Your task to perform on an android device: turn on javascript in the chrome app Image 0: 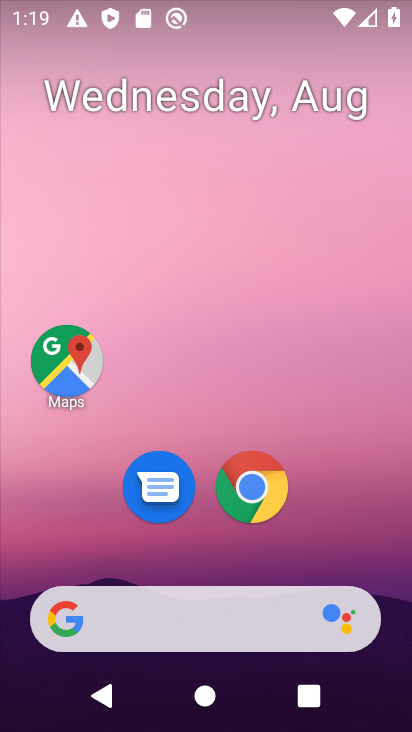
Step 0: drag from (271, 545) to (294, 29)
Your task to perform on an android device: turn on javascript in the chrome app Image 1: 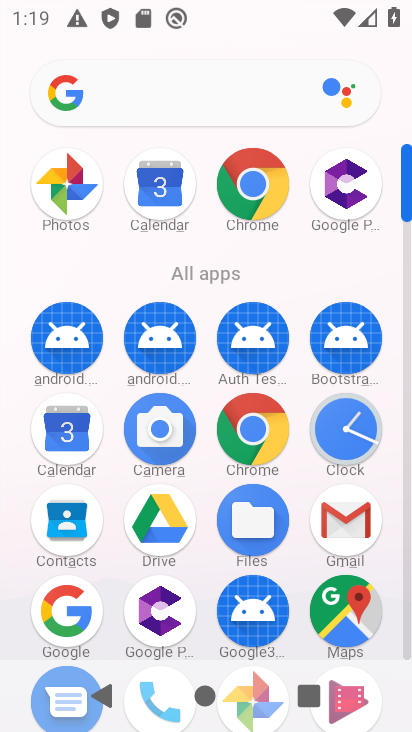
Step 1: click (249, 429)
Your task to perform on an android device: turn on javascript in the chrome app Image 2: 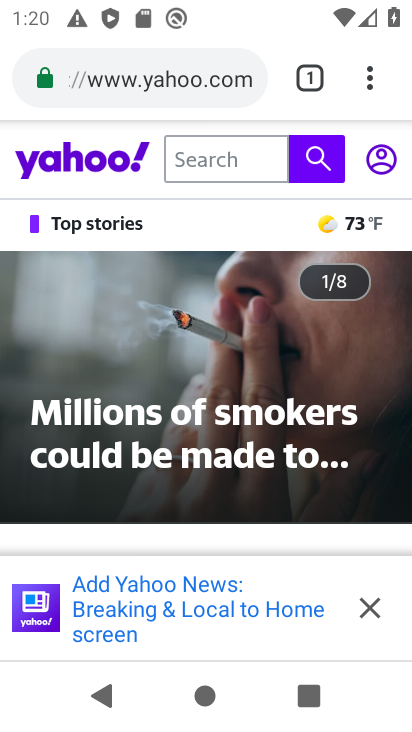
Step 2: drag from (368, 77) to (224, 548)
Your task to perform on an android device: turn on javascript in the chrome app Image 3: 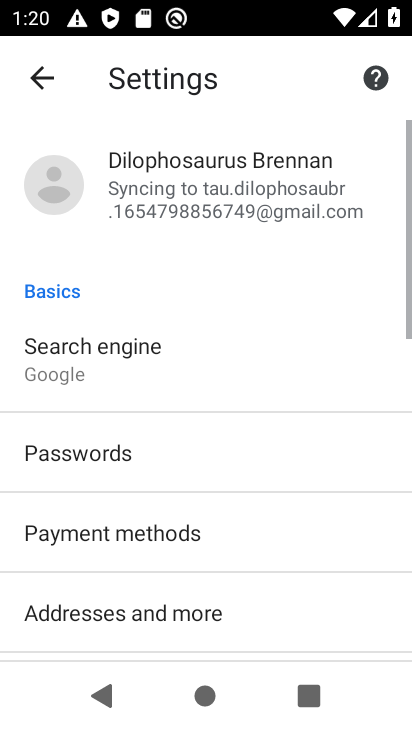
Step 3: drag from (211, 607) to (212, 216)
Your task to perform on an android device: turn on javascript in the chrome app Image 4: 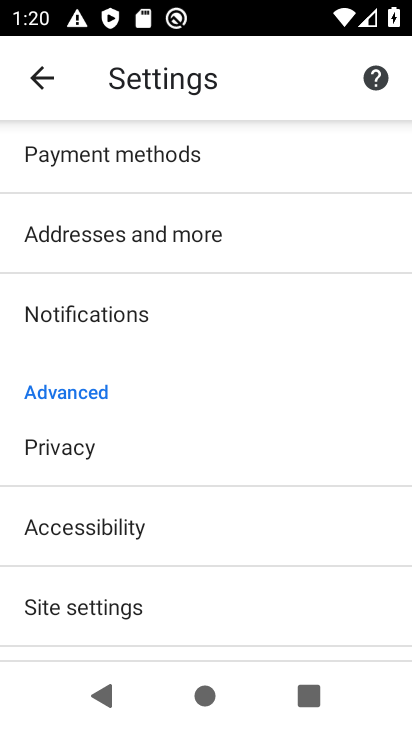
Step 4: click (66, 600)
Your task to perform on an android device: turn on javascript in the chrome app Image 5: 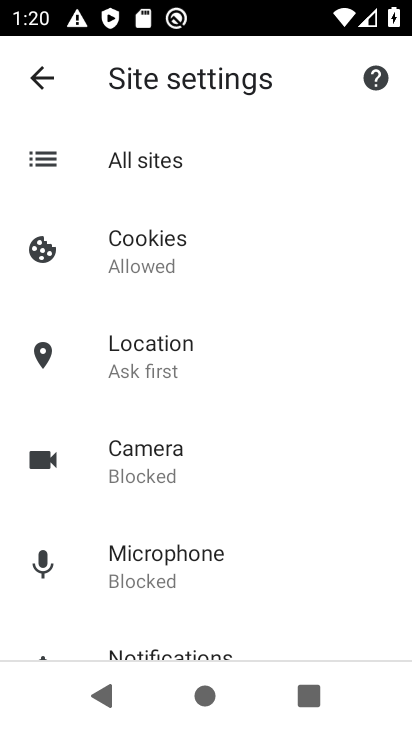
Step 5: drag from (291, 599) to (316, 272)
Your task to perform on an android device: turn on javascript in the chrome app Image 6: 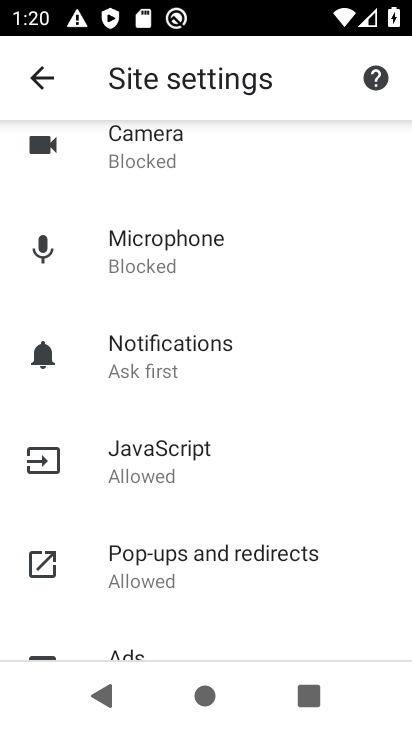
Step 6: click (108, 454)
Your task to perform on an android device: turn on javascript in the chrome app Image 7: 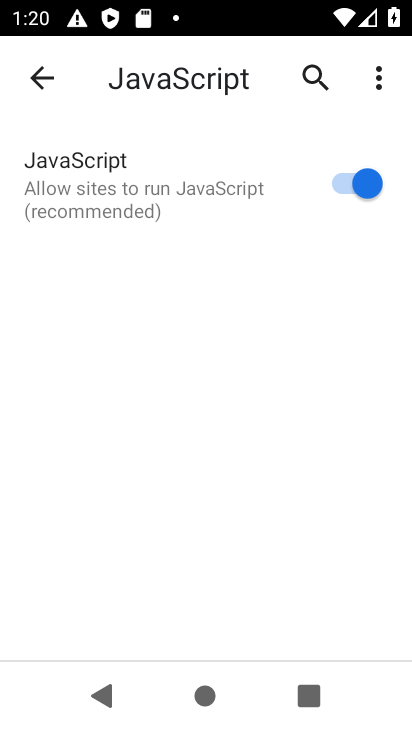
Step 7: task complete